Your task to perform on an android device: turn on the 24-hour format for clock Image 0: 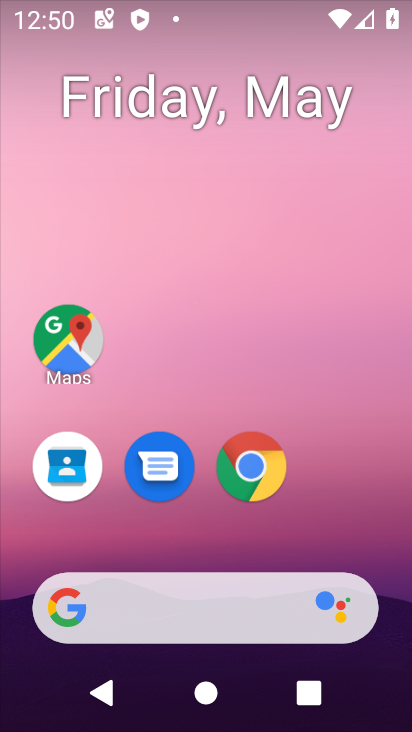
Step 0: drag from (293, 544) to (284, 6)
Your task to perform on an android device: turn on the 24-hour format for clock Image 1: 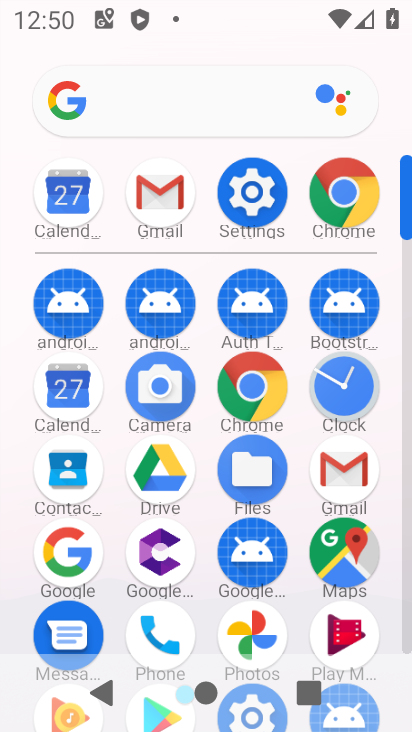
Step 1: click (332, 384)
Your task to perform on an android device: turn on the 24-hour format for clock Image 2: 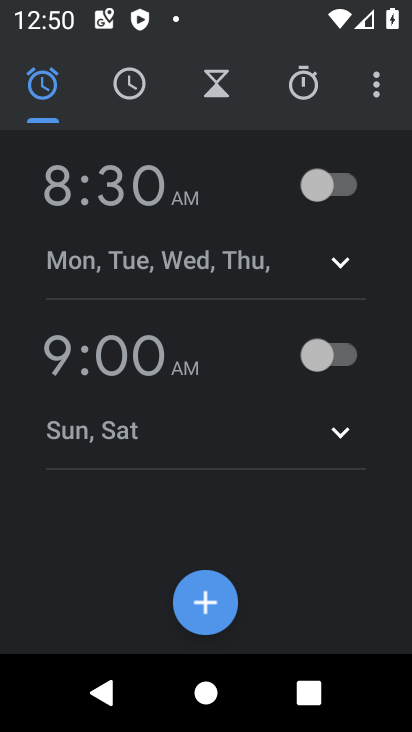
Step 2: click (381, 99)
Your task to perform on an android device: turn on the 24-hour format for clock Image 3: 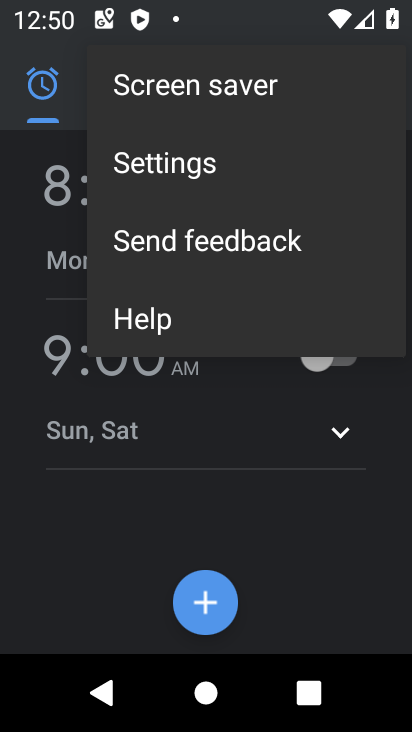
Step 3: click (213, 181)
Your task to perform on an android device: turn on the 24-hour format for clock Image 4: 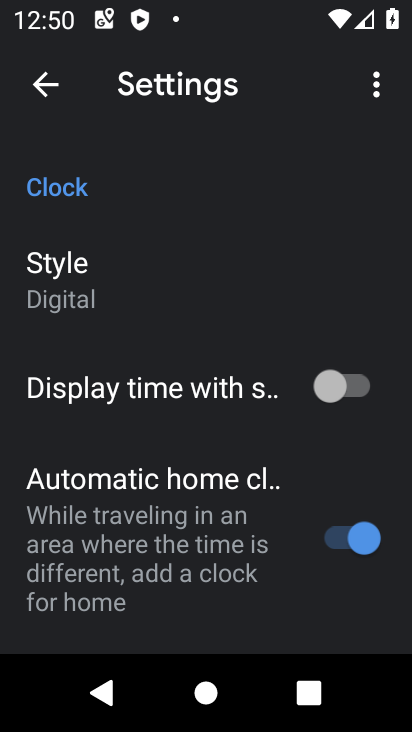
Step 4: drag from (190, 566) to (74, 130)
Your task to perform on an android device: turn on the 24-hour format for clock Image 5: 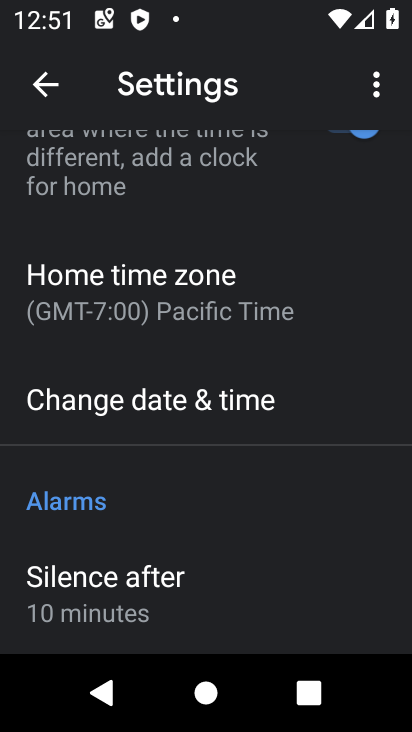
Step 5: drag from (193, 236) to (238, 485)
Your task to perform on an android device: turn on the 24-hour format for clock Image 6: 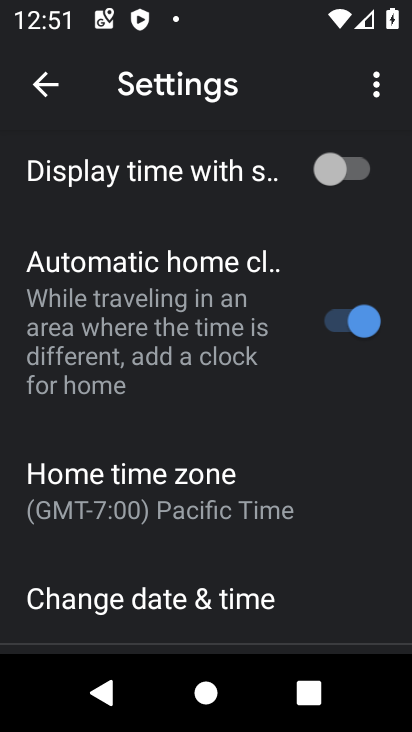
Step 6: click (204, 597)
Your task to perform on an android device: turn on the 24-hour format for clock Image 7: 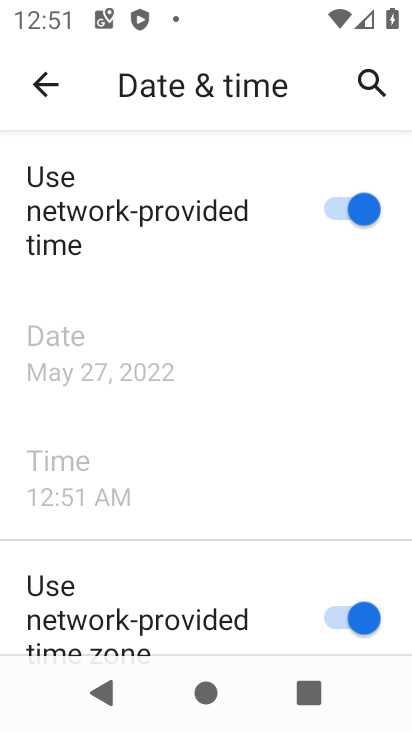
Step 7: drag from (216, 563) to (179, 153)
Your task to perform on an android device: turn on the 24-hour format for clock Image 8: 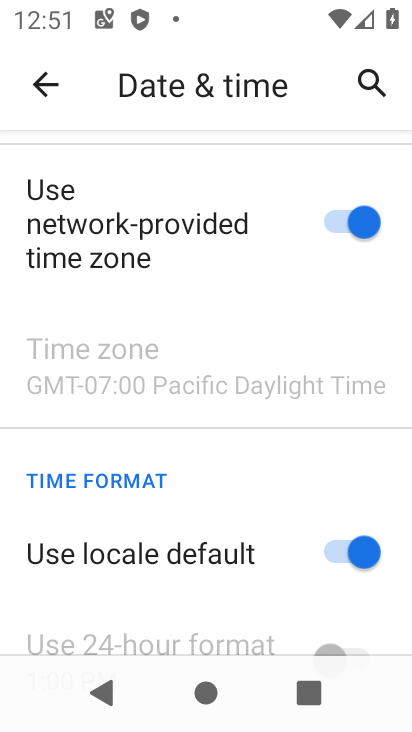
Step 8: drag from (265, 577) to (243, 337)
Your task to perform on an android device: turn on the 24-hour format for clock Image 9: 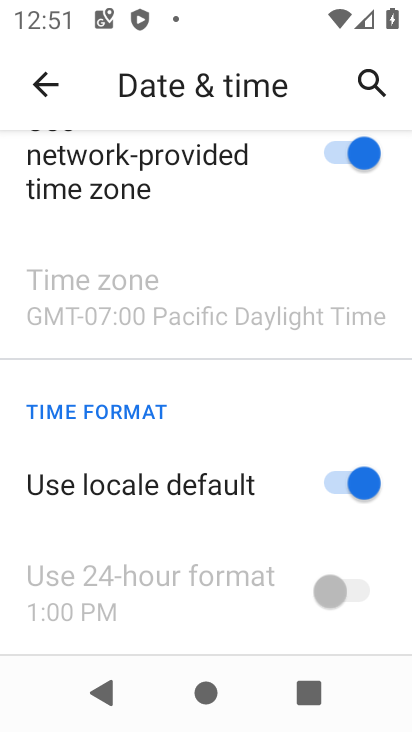
Step 9: drag from (87, 542) to (134, 294)
Your task to perform on an android device: turn on the 24-hour format for clock Image 10: 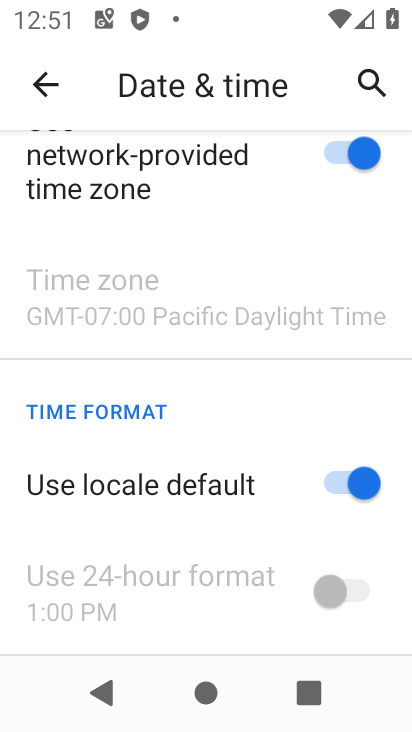
Step 10: click (342, 491)
Your task to perform on an android device: turn on the 24-hour format for clock Image 11: 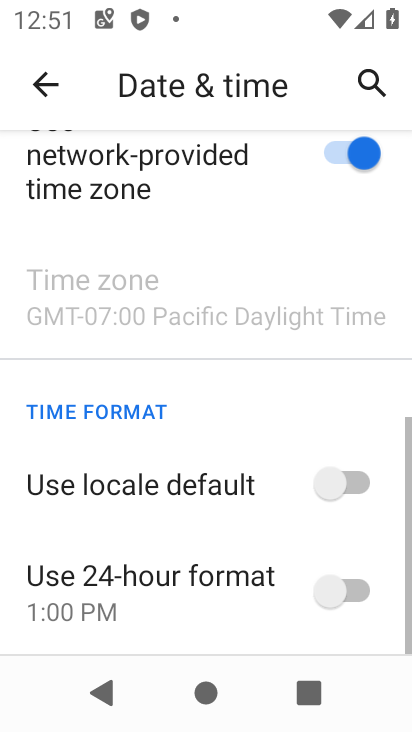
Step 11: click (356, 595)
Your task to perform on an android device: turn on the 24-hour format for clock Image 12: 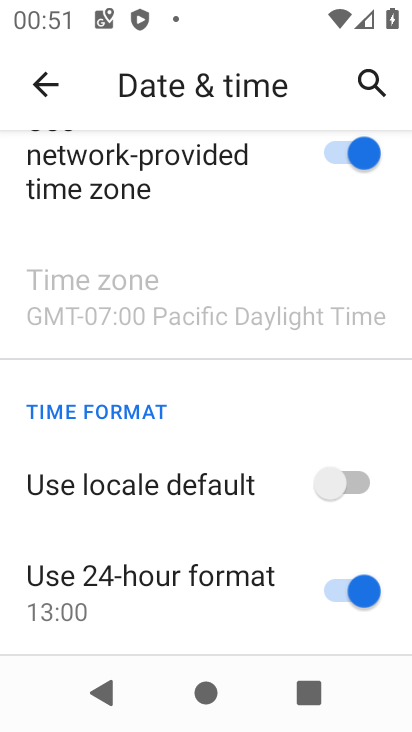
Step 12: task complete